Your task to perform on an android device: Turn on the flashlight Image 0: 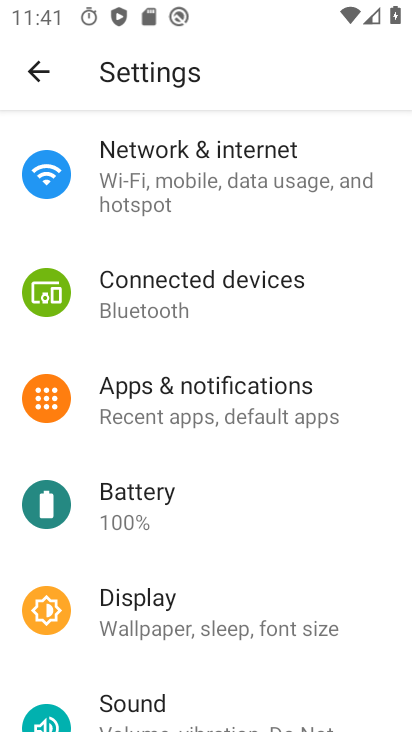
Step 0: click (152, 404)
Your task to perform on an android device: Turn on the flashlight Image 1: 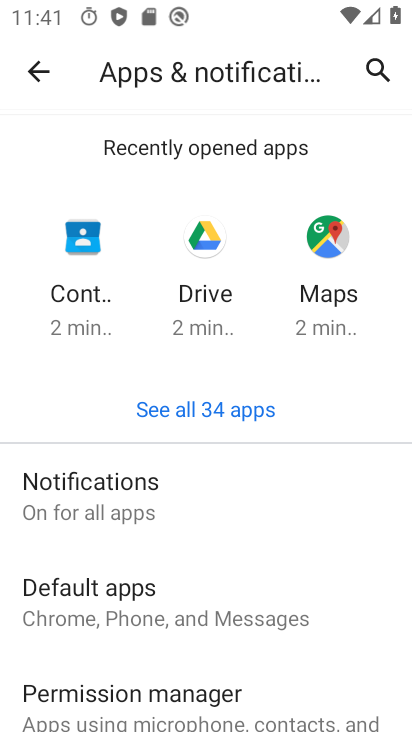
Step 1: click (307, 403)
Your task to perform on an android device: Turn on the flashlight Image 2: 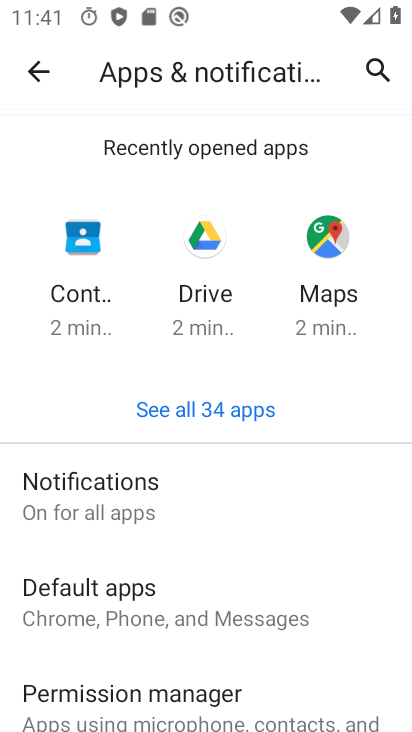
Step 2: click (89, 490)
Your task to perform on an android device: Turn on the flashlight Image 3: 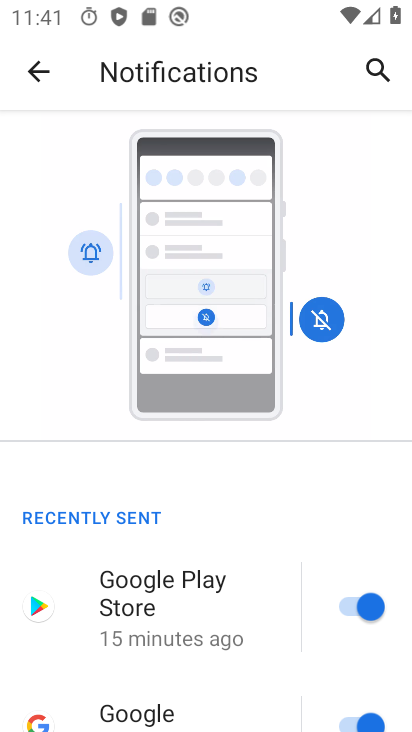
Step 3: task complete